Your task to perform on an android device: Open location settings Image 0: 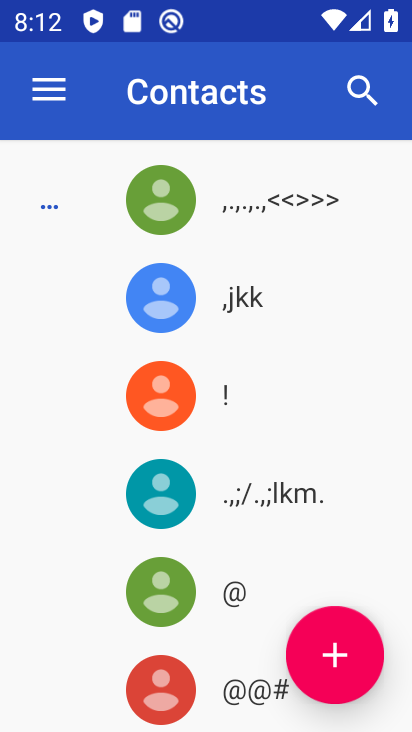
Step 0: press home button
Your task to perform on an android device: Open location settings Image 1: 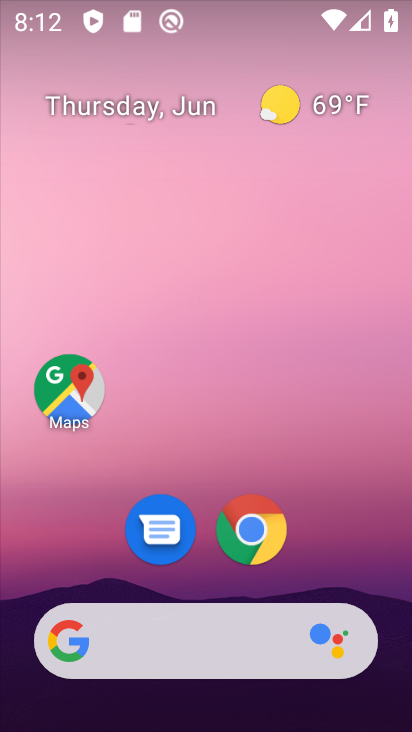
Step 1: drag from (208, 599) to (194, 110)
Your task to perform on an android device: Open location settings Image 2: 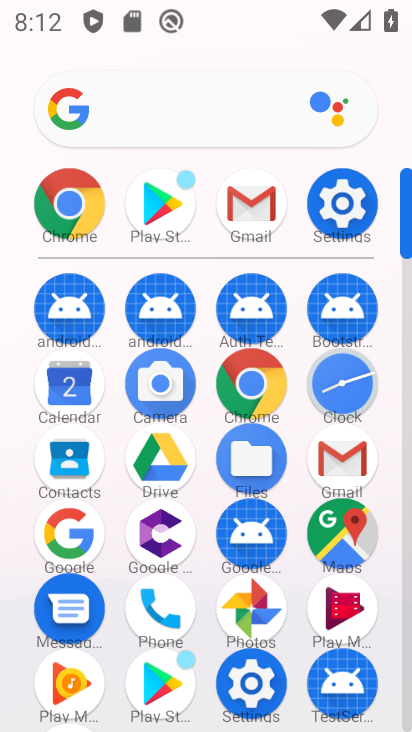
Step 2: click (333, 212)
Your task to perform on an android device: Open location settings Image 3: 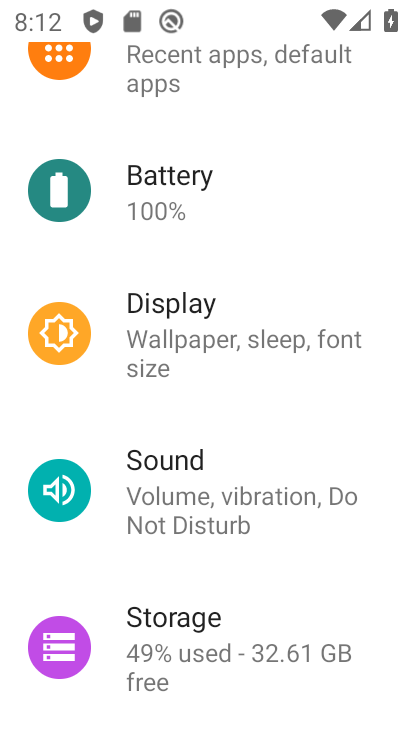
Step 3: drag from (197, 232) to (196, 593)
Your task to perform on an android device: Open location settings Image 4: 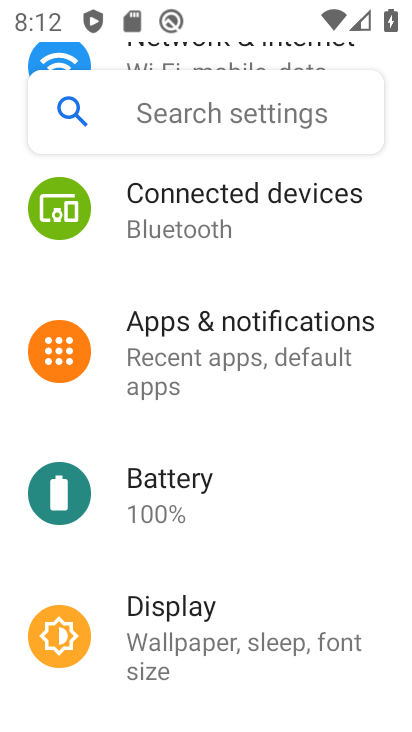
Step 4: drag from (219, 218) to (195, 521)
Your task to perform on an android device: Open location settings Image 5: 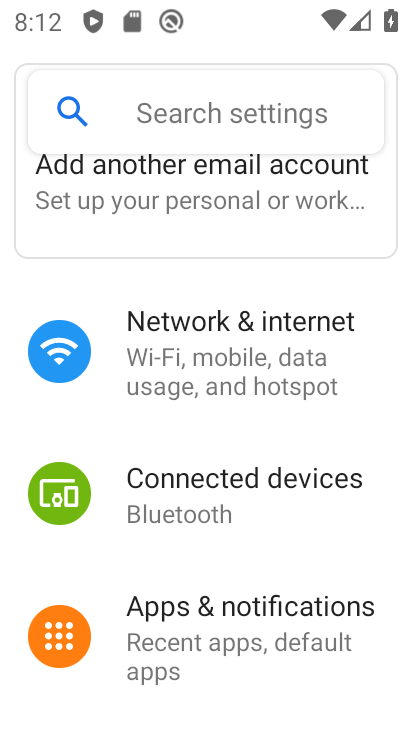
Step 5: drag from (203, 532) to (230, 173)
Your task to perform on an android device: Open location settings Image 6: 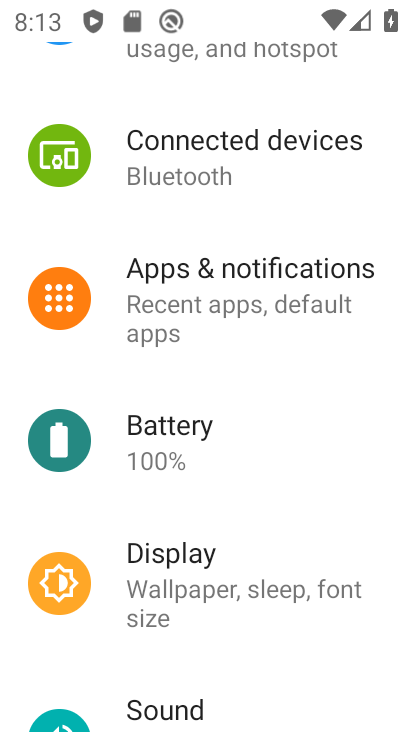
Step 6: drag from (81, 452) to (31, 70)
Your task to perform on an android device: Open location settings Image 7: 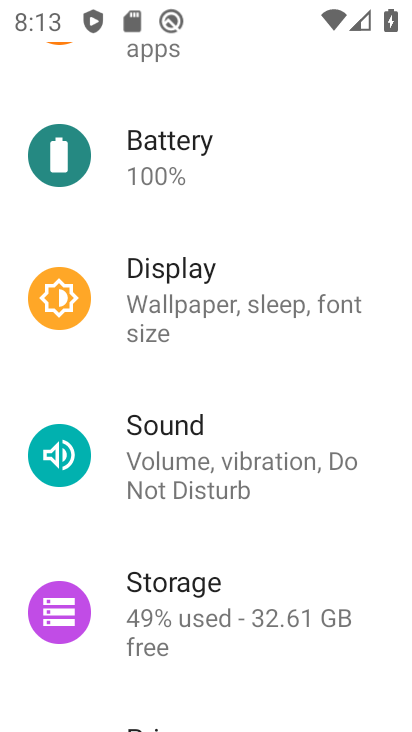
Step 7: drag from (185, 567) to (185, 113)
Your task to perform on an android device: Open location settings Image 8: 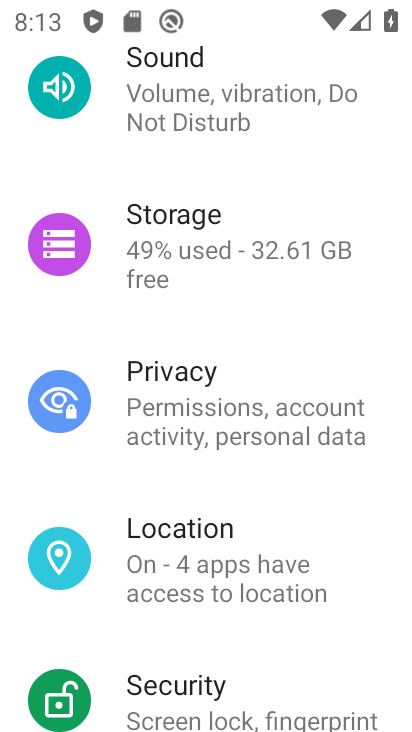
Step 8: click (216, 517)
Your task to perform on an android device: Open location settings Image 9: 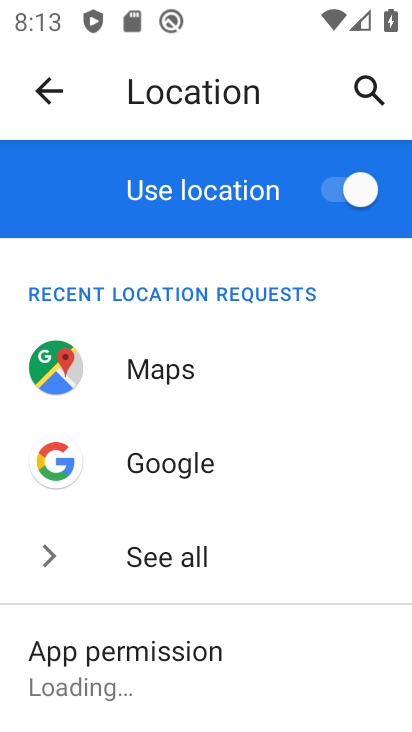
Step 9: task complete